Your task to perform on an android device: turn off smart reply in the gmail app Image 0: 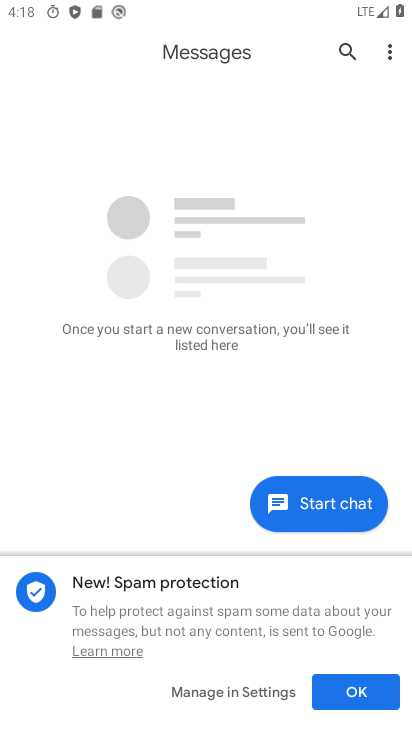
Step 0: press home button
Your task to perform on an android device: turn off smart reply in the gmail app Image 1: 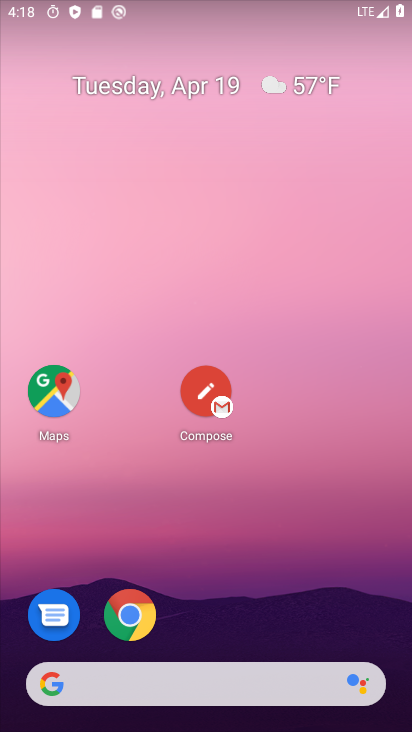
Step 1: drag from (355, 678) to (259, 2)
Your task to perform on an android device: turn off smart reply in the gmail app Image 2: 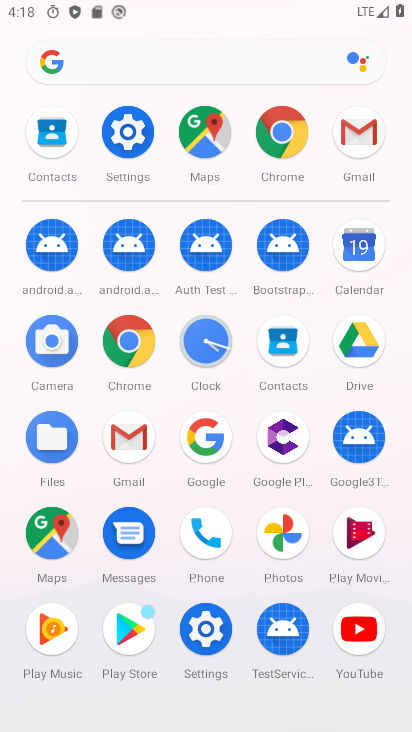
Step 2: click (135, 439)
Your task to perform on an android device: turn off smart reply in the gmail app Image 3: 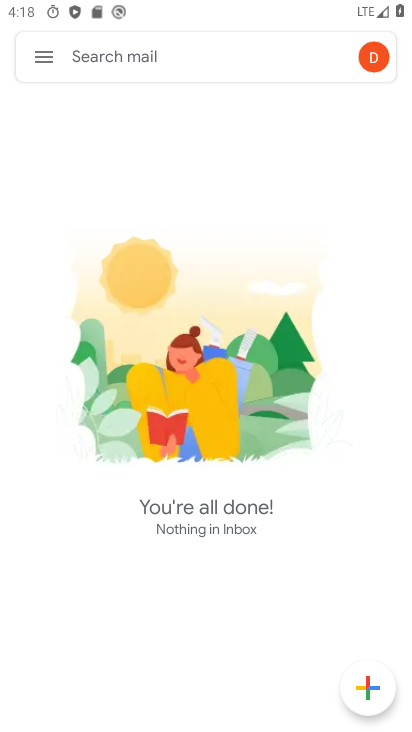
Step 3: click (34, 55)
Your task to perform on an android device: turn off smart reply in the gmail app Image 4: 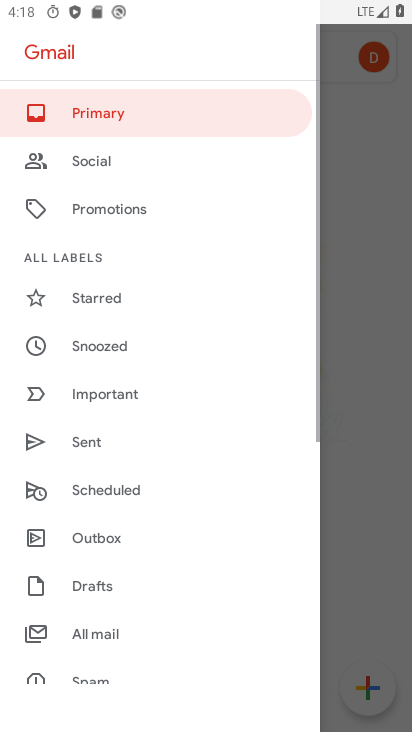
Step 4: drag from (163, 650) to (185, 25)
Your task to perform on an android device: turn off smart reply in the gmail app Image 5: 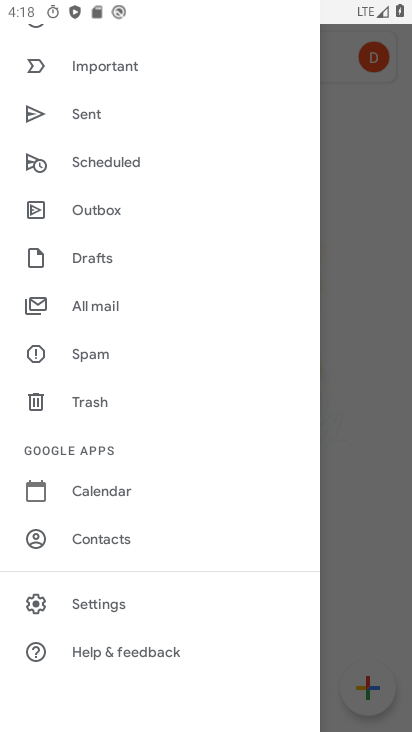
Step 5: click (142, 609)
Your task to perform on an android device: turn off smart reply in the gmail app Image 6: 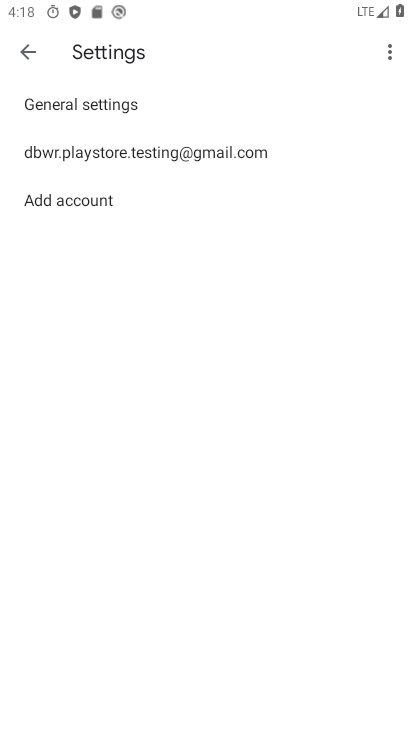
Step 6: click (185, 161)
Your task to perform on an android device: turn off smart reply in the gmail app Image 7: 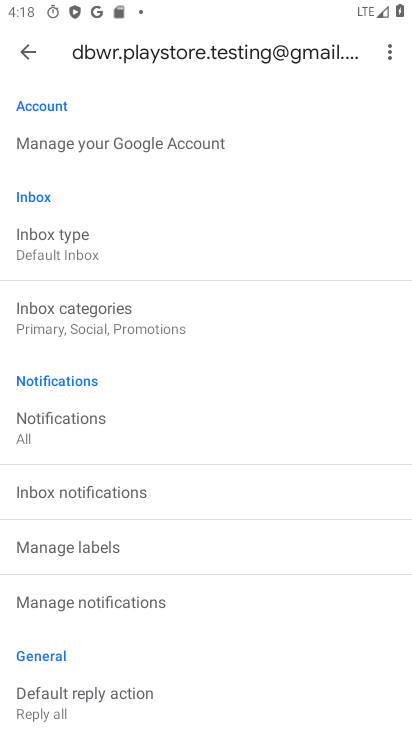
Step 7: task complete